Your task to perform on an android device: Go to sound settings Image 0: 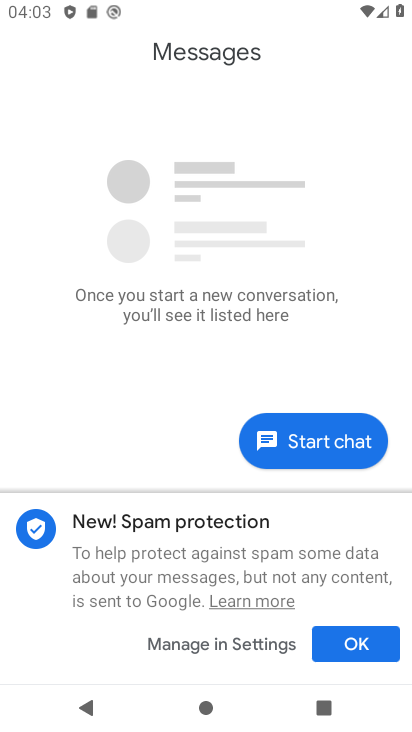
Step 0: drag from (376, 596) to (366, 543)
Your task to perform on an android device: Go to sound settings Image 1: 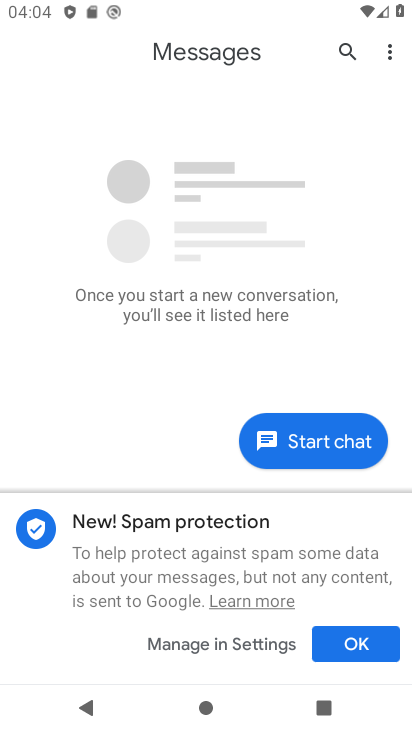
Step 1: press home button
Your task to perform on an android device: Go to sound settings Image 2: 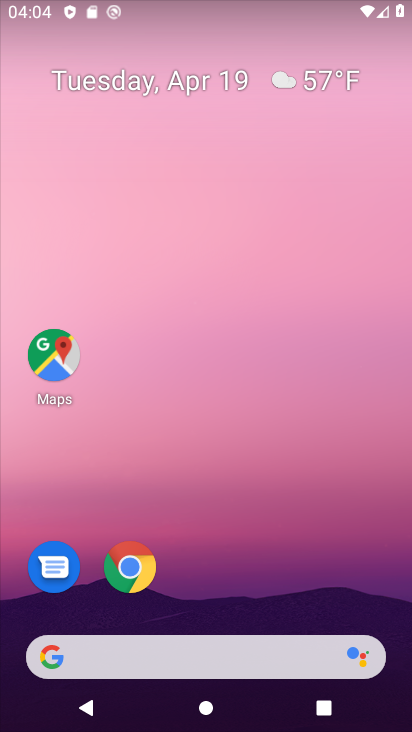
Step 2: drag from (372, 534) to (343, 241)
Your task to perform on an android device: Go to sound settings Image 3: 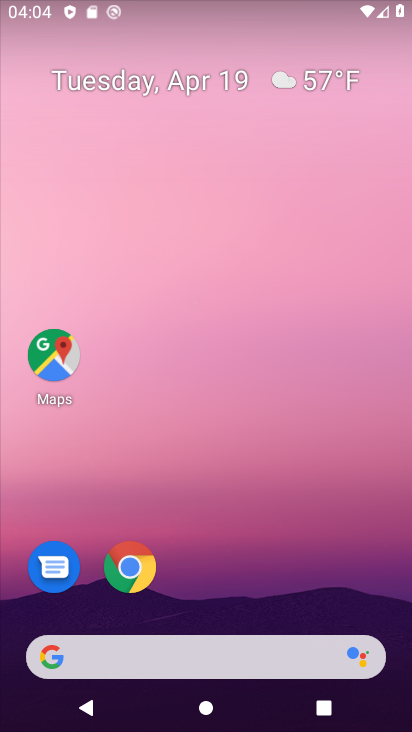
Step 3: drag from (319, 521) to (328, 165)
Your task to perform on an android device: Go to sound settings Image 4: 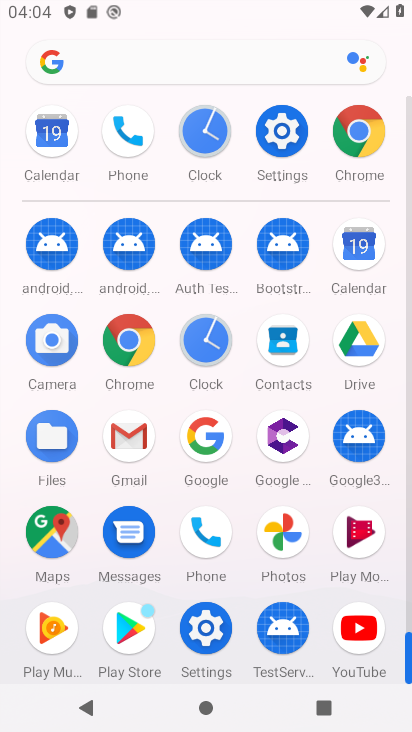
Step 4: click (291, 141)
Your task to perform on an android device: Go to sound settings Image 5: 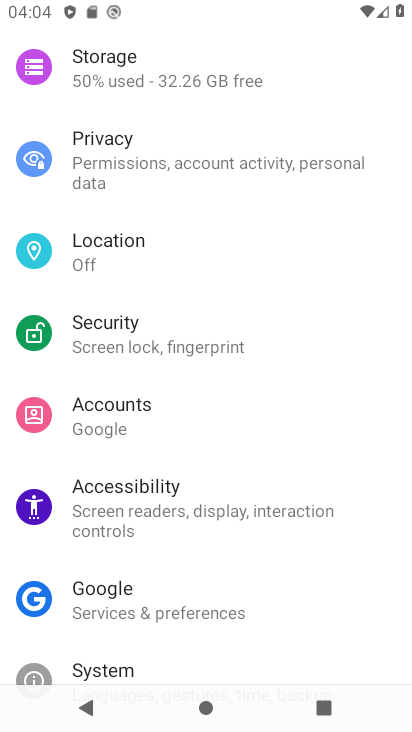
Step 5: drag from (341, 602) to (344, 385)
Your task to perform on an android device: Go to sound settings Image 6: 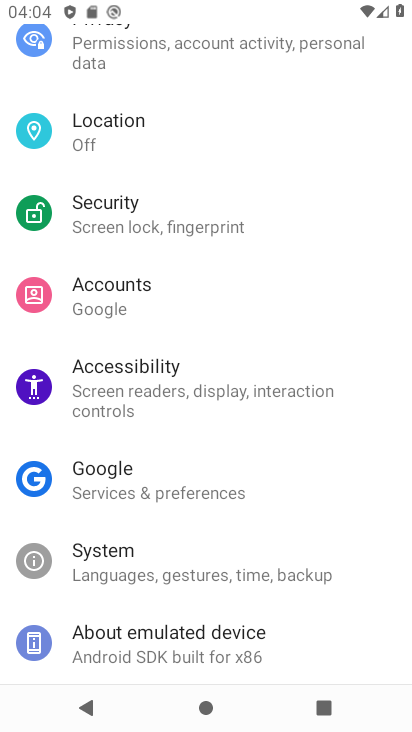
Step 6: drag from (356, 540) to (347, 333)
Your task to perform on an android device: Go to sound settings Image 7: 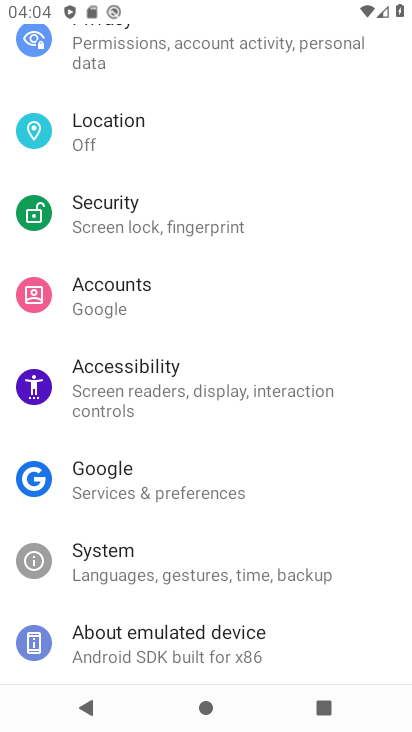
Step 7: drag from (355, 318) to (362, 488)
Your task to perform on an android device: Go to sound settings Image 8: 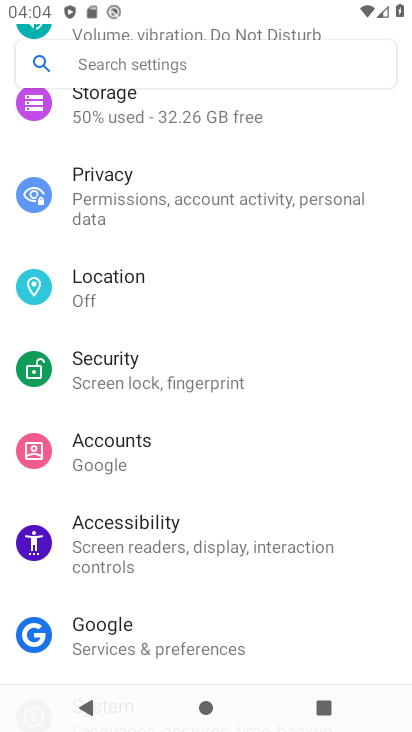
Step 8: drag from (367, 305) to (353, 409)
Your task to perform on an android device: Go to sound settings Image 9: 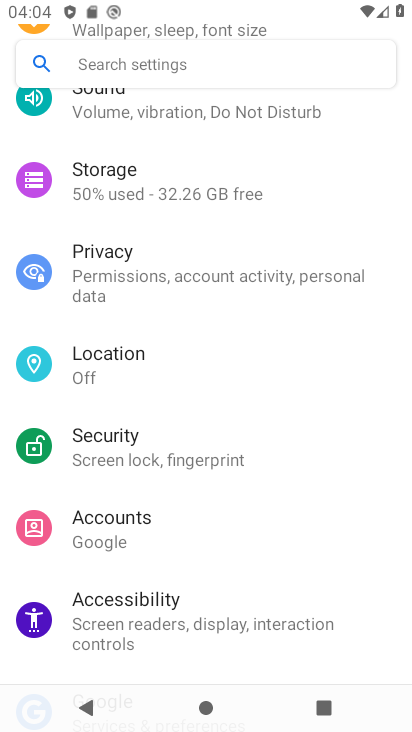
Step 9: drag from (330, 345) to (321, 478)
Your task to perform on an android device: Go to sound settings Image 10: 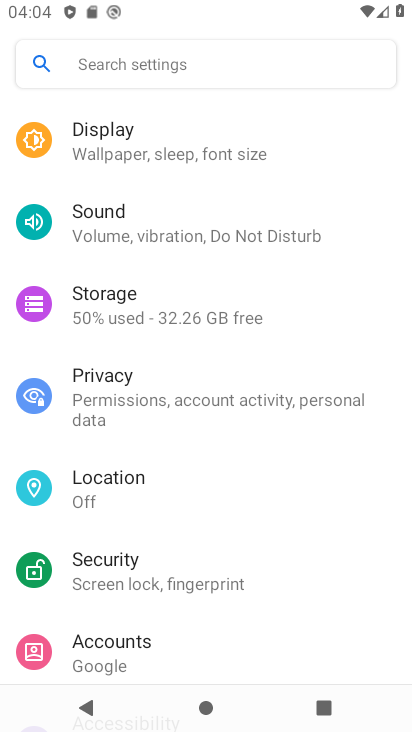
Step 10: drag from (354, 310) to (330, 516)
Your task to perform on an android device: Go to sound settings Image 11: 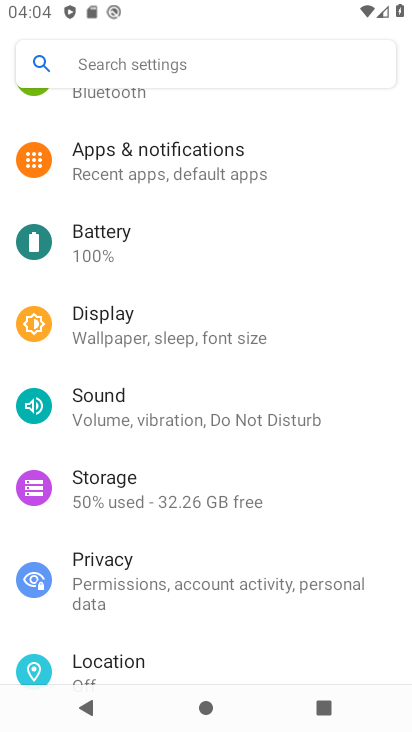
Step 11: drag from (319, 317) to (290, 489)
Your task to perform on an android device: Go to sound settings Image 12: 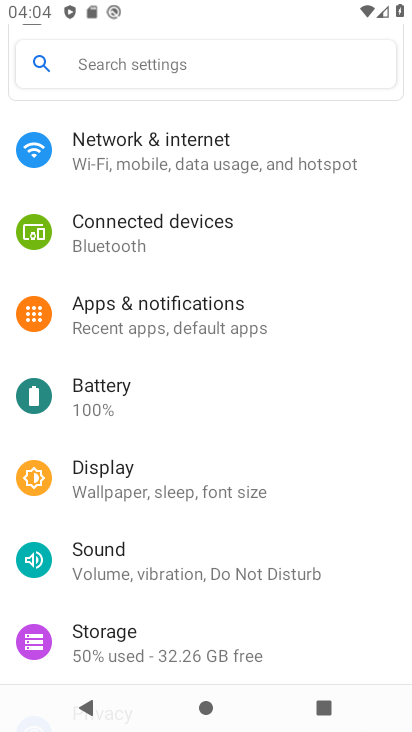
Step 12: click (183, 562)
Your task to perform on an android device: Go to sound settings Image 13: 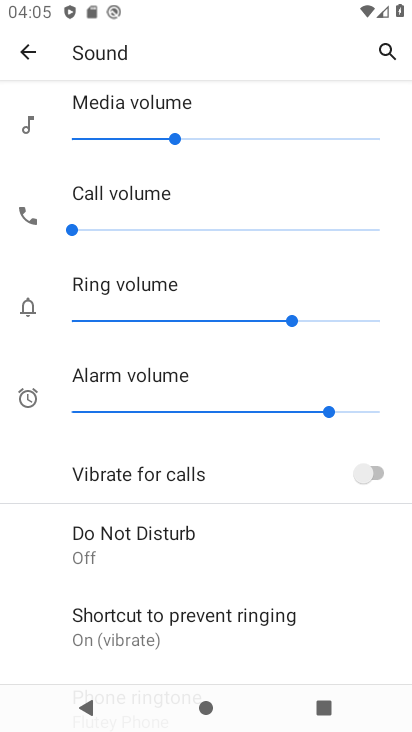
Step 13: task complete